Your task to perform on an android device: check the backup settings in the google photos Image 0: 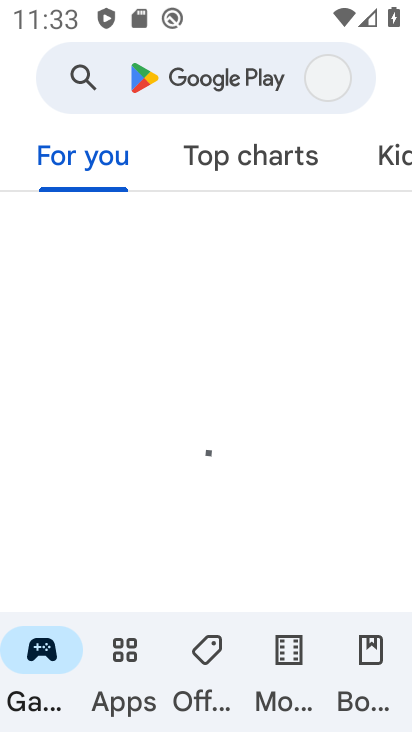
Step 0: press home button
Your task to perform on an android device: check the backup settings in the google photos Image 1: 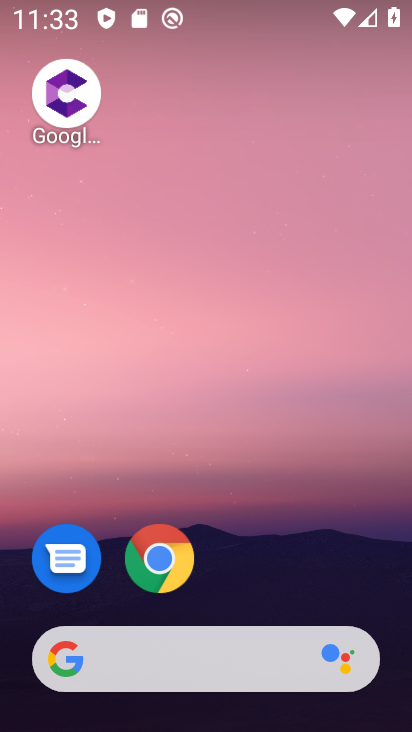
Step 1: drag from (362, 560) to (329, 82)
Your task to perform on an android device: check the backup settings in the google photos Image 2: 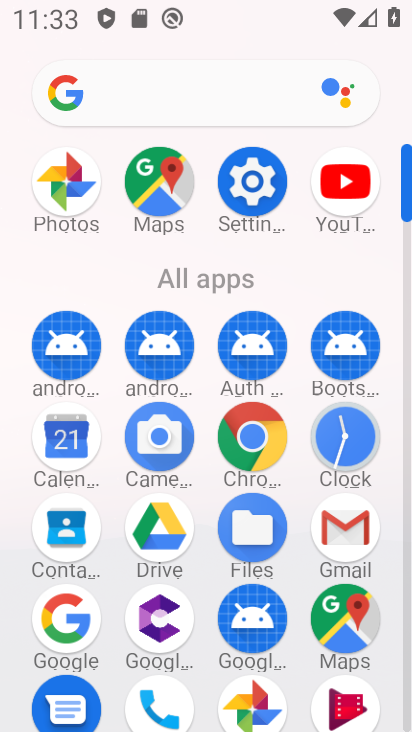
Step 2: click (79, 195)
Your task to perform on an android device: check the backup settings in the google photos Image 3: 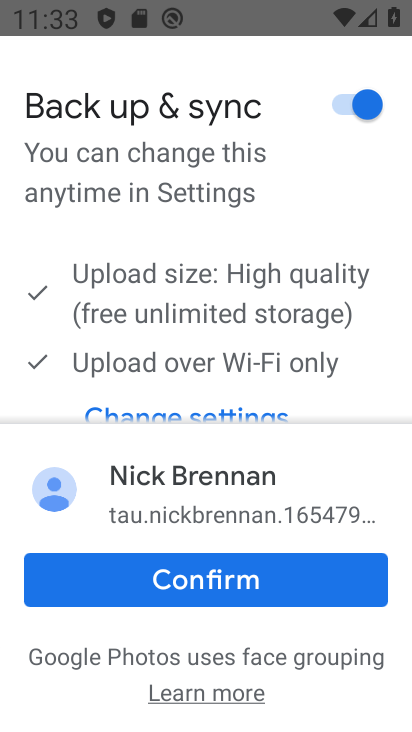
Step 3: click (170, 566)
Your task to perform on an android device: check the backup settings in the google photos Image 4: 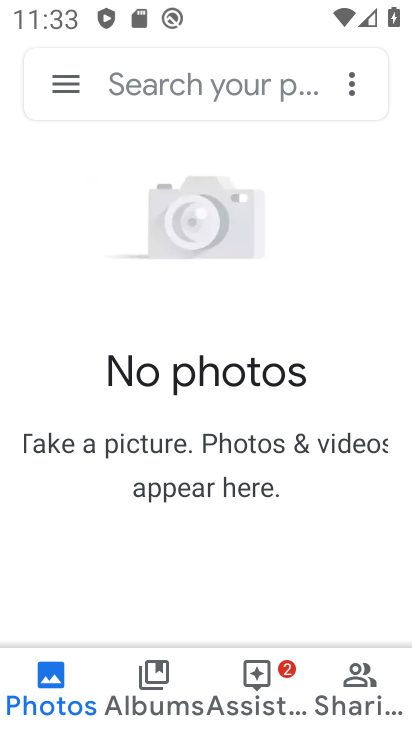
Step 4: click (66, 90)
Your task to perform on an android device: check the backup settings in the google photos Image 5: 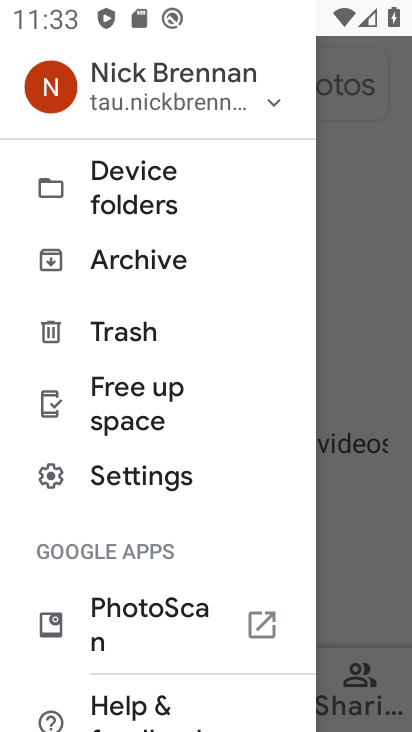
Step 5: click (194, 489)
Your task to perform on an android device: check the backup settings in the google photos Image 6: 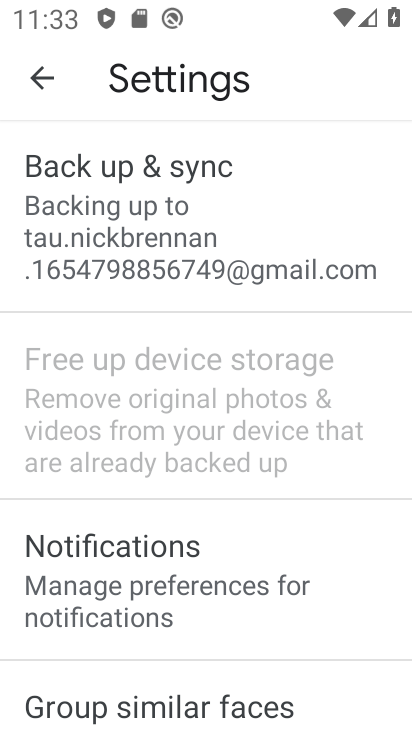
Step 6: click (235, 271)
Your task to perform on an android device: check the backup settings in the google photos Image 7: 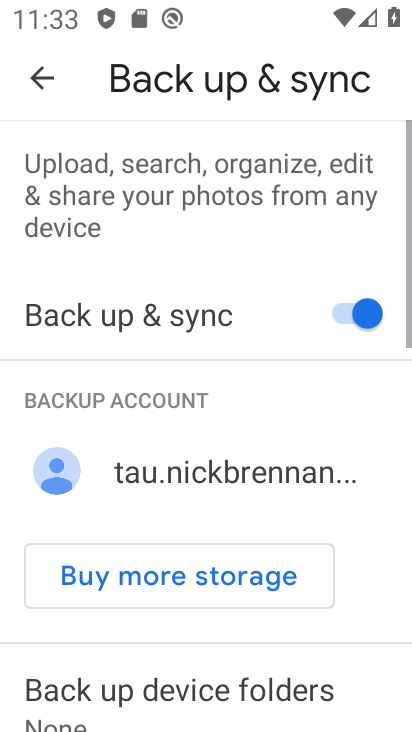
Step 7: task complete